Your task to perform on an android device: toggle notifications settings in the gmail app Image 0: 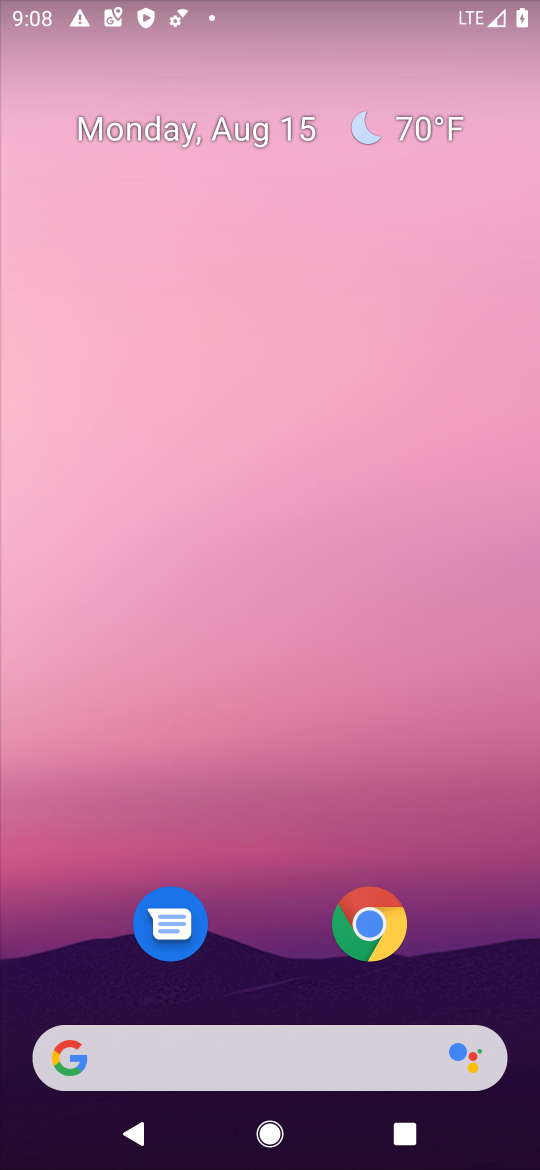
Step 0: drag from (505, 985) to (430, 237)
Your task to perform on an android device: toggle notifications settings in the gmail app Image 1: 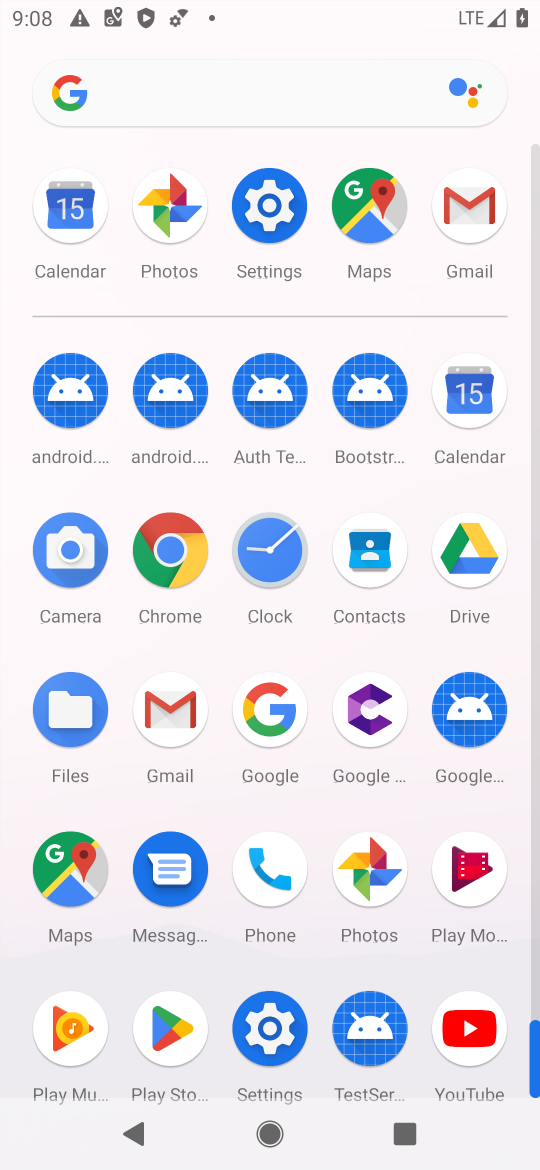
Step 1: click (165, 711)
Your task to perform on an android device: toggle notifications settings in the gmail app Image 2: 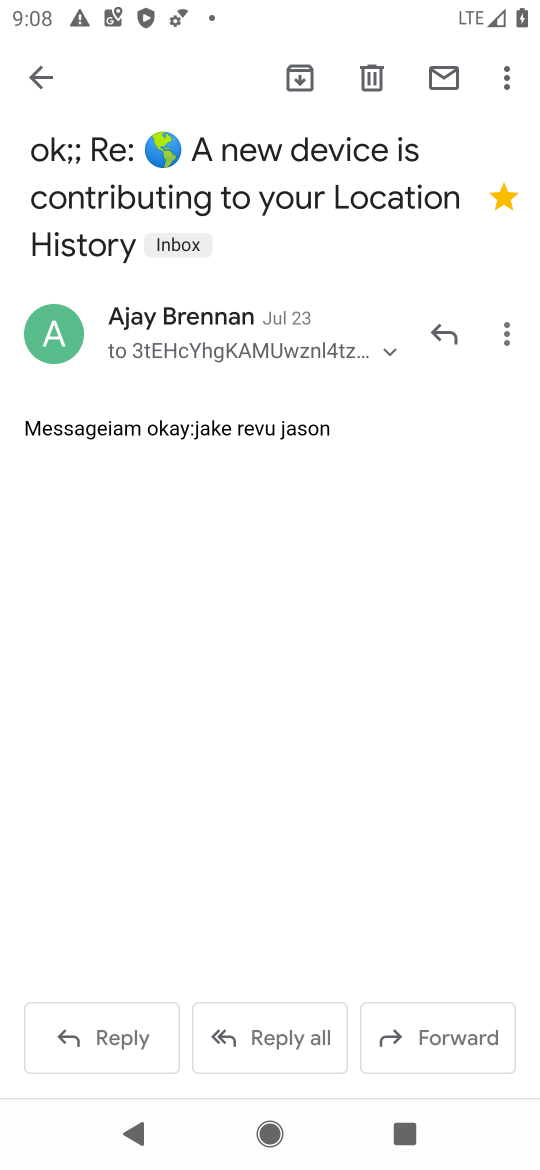
Step 2: press back button
Your task to perform on an android device: toggle notifications settings in the gmail app Image 3: 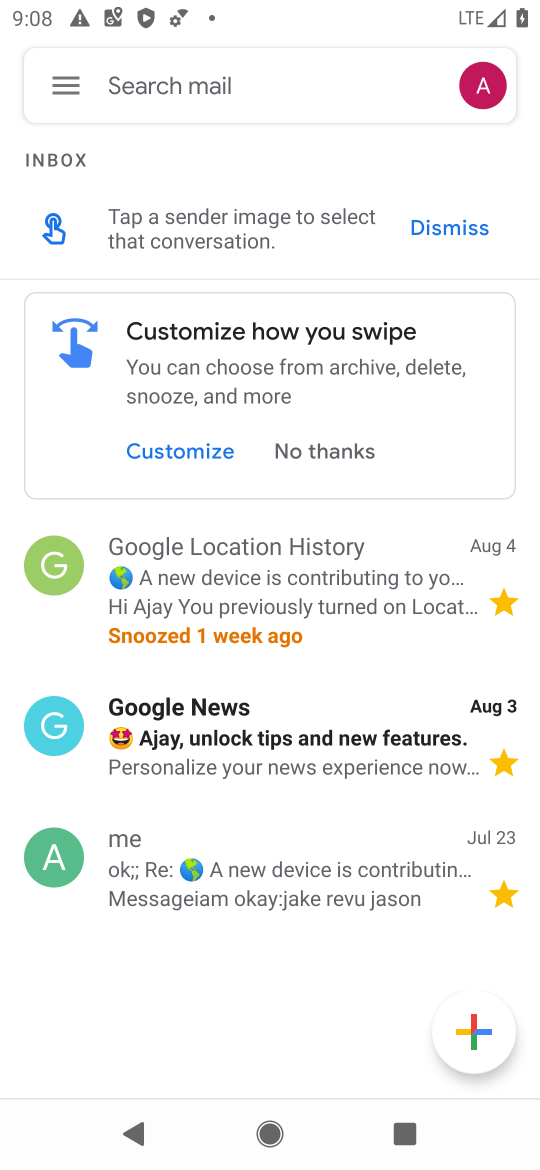
Step 3: click (72, 90)
Your task to perform on an android device: toggle notifications settings in the gmail app Image 4: 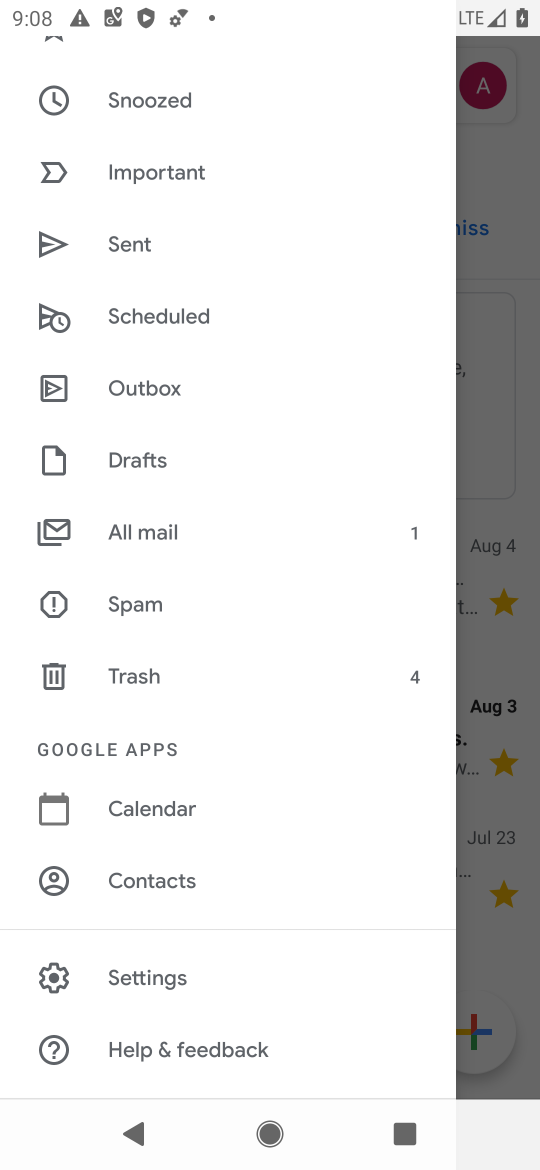
Step 4: click (143, 982)
Your task to perform on an android device: toggle notifications settings in the gmail app Image 5: 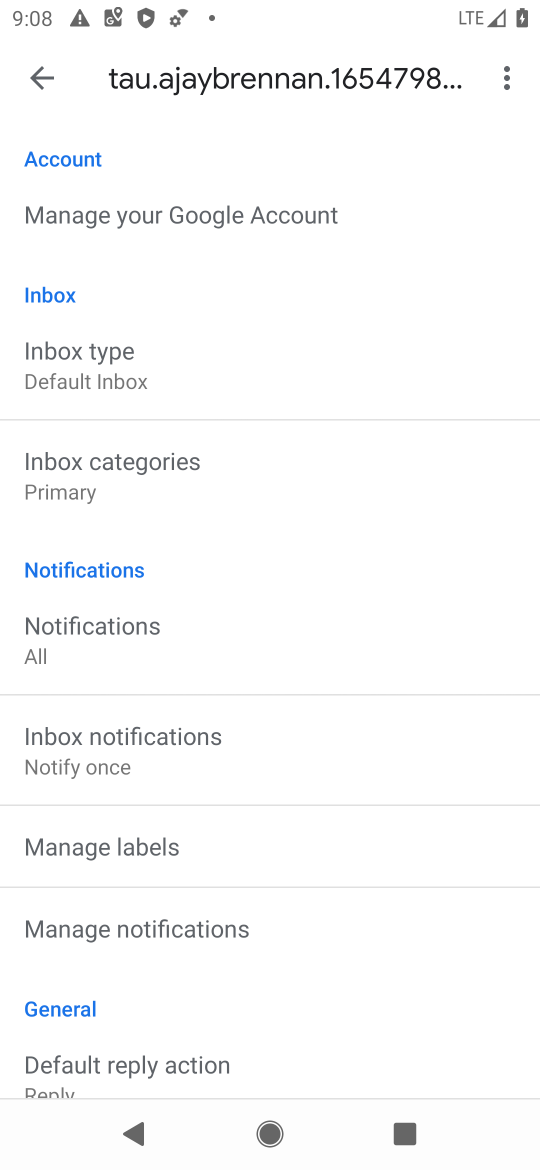
Step 5: click (127, 932)
Your task to perform on an android device: toggle notifications settings in the gmail app Image 6: 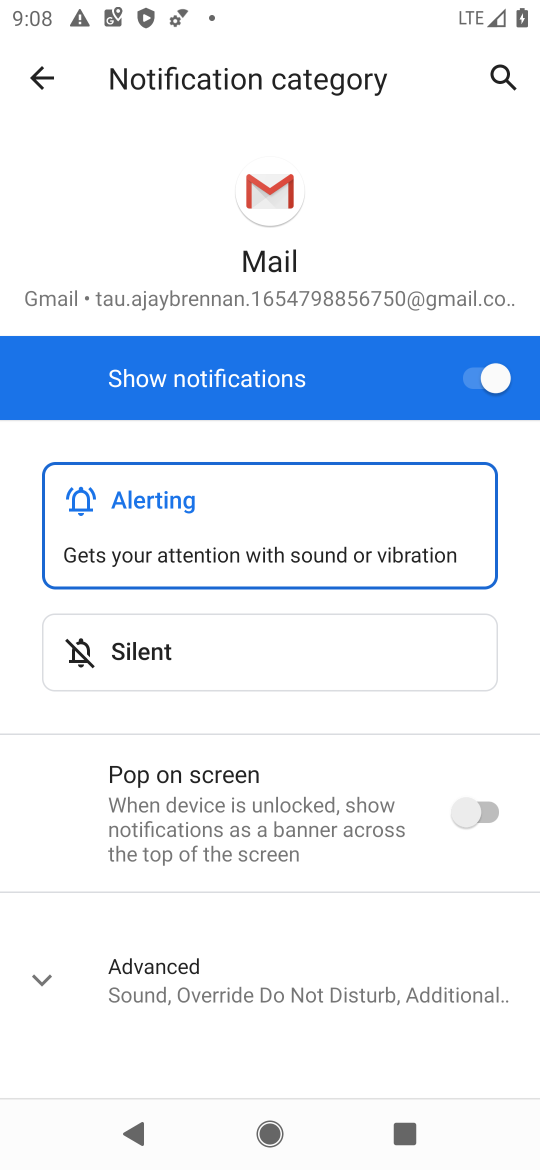
Step 6: click (472, 381)
Your task to perform on an android device: toggle notifications settings in the gmail app Image 7: 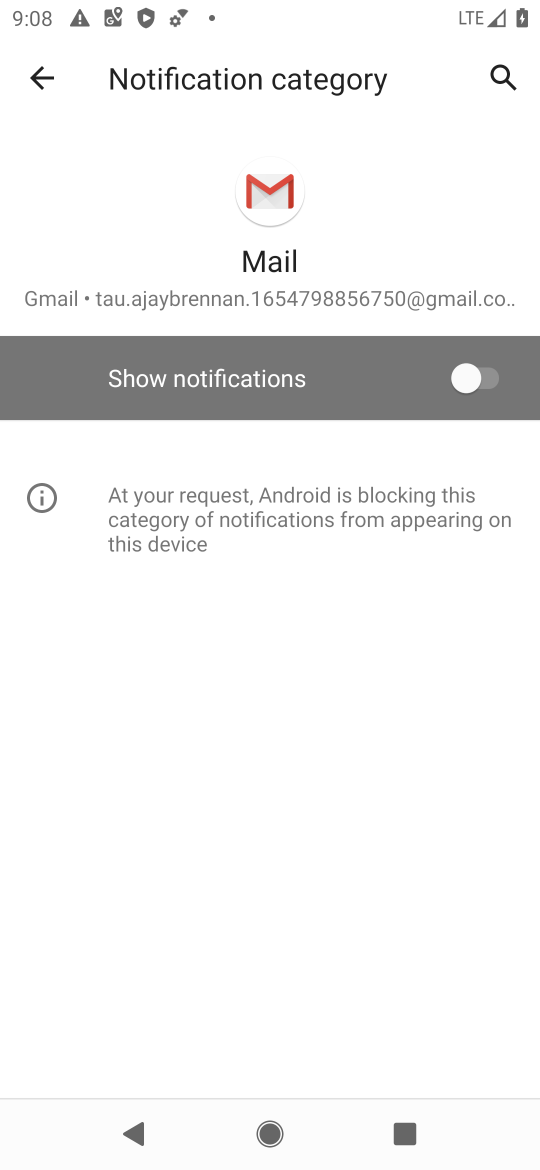
Step 7: task complete